Your task to perform on an android device: open the mobile data screen to see how much data has been used Image 0: 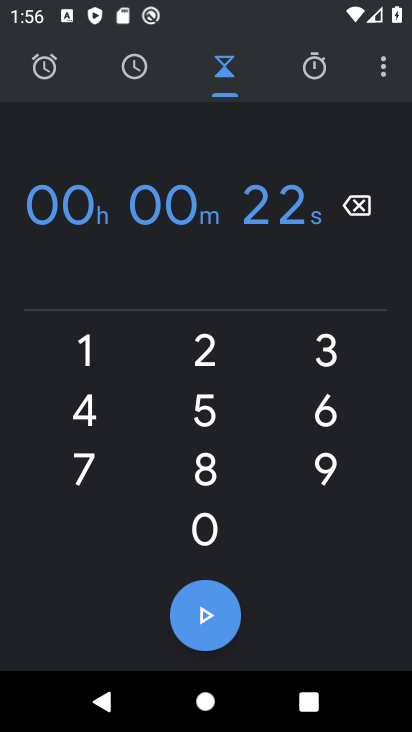
Step 0: press home button
Your task to perform on an android device: open the mobile data screen to see how much data has been used Image 1: 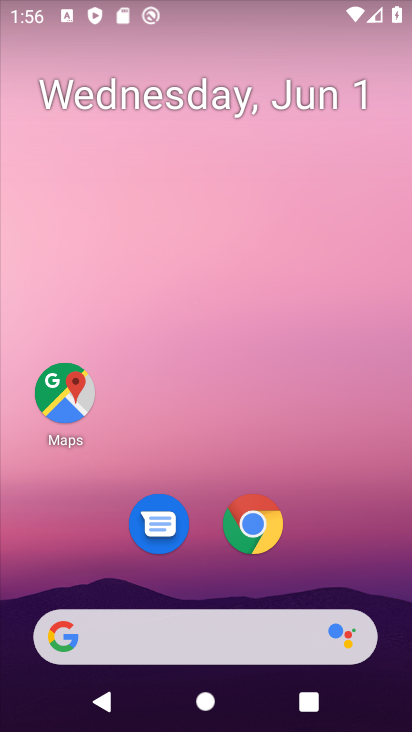
Step 1: drag from (251, 471) to (267, 25)
Your task to perform on an android device: open the mobile data screen to see how much data has been used Image 2: 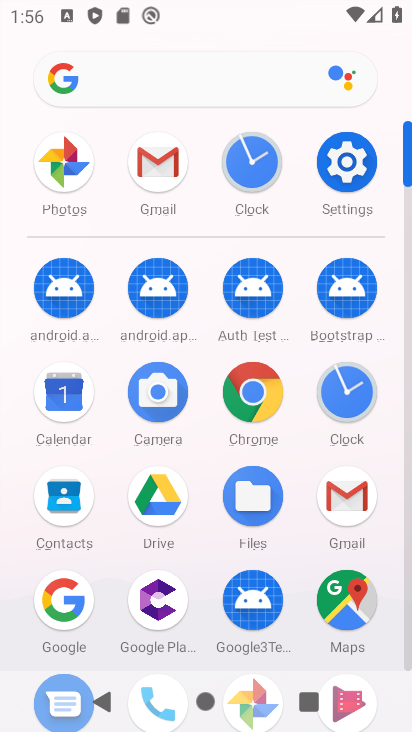
Step 2: click (347, 159)
Your task to perform on an android device: open the mobile data screen to see how much data has been used Image 3: 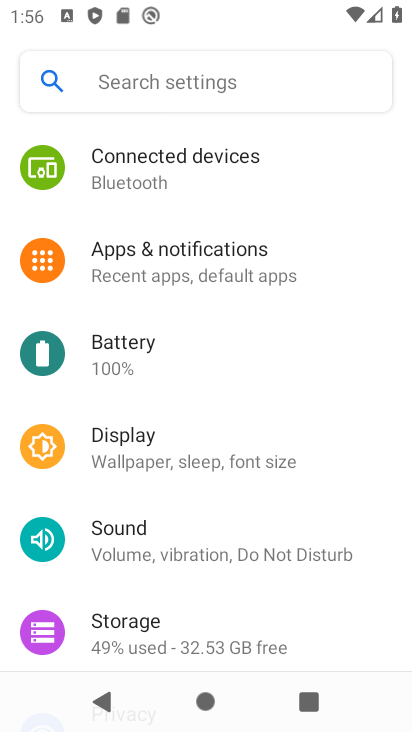
Step 3: drag from (270, 220) to (203, 563)
Your task to perform on an android device: open the mobile data screen to see how much data has been used Image 4: 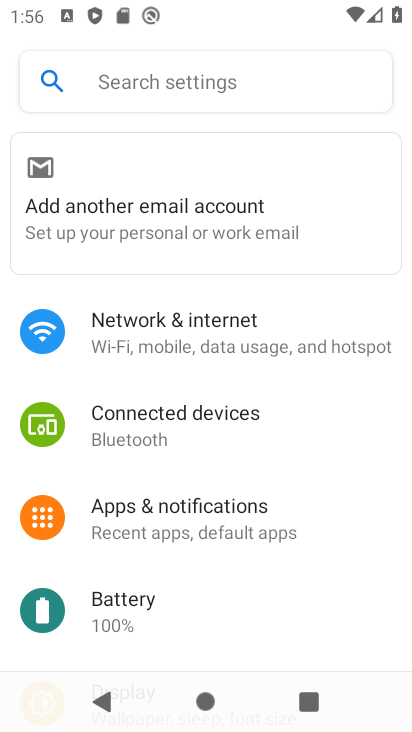
Step 4: click (232, 332)
Your task to perform on an android device: open the mobile data screen to see how much data has been used Image 5: 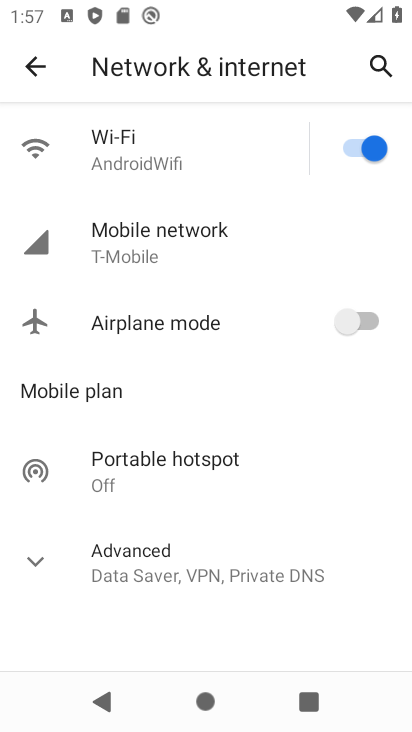
Step 5: click (228, 255)
Your task to perform on an android device: open the mobile data screen to see how much data has been used Image 6: 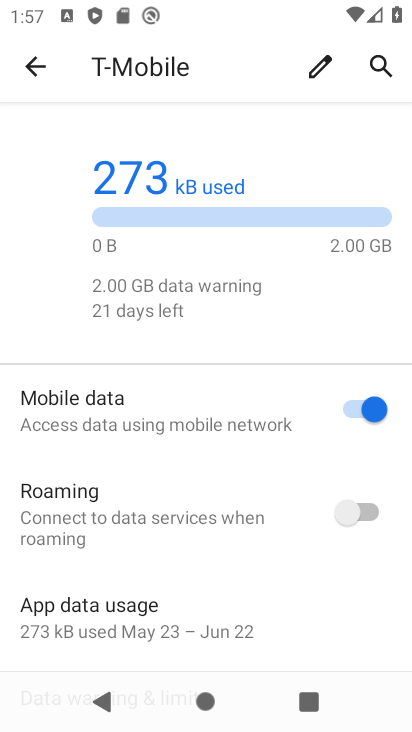
Step 6: task complete